Your task to perform on an android device: open app "Fetch Rewards" (install if not already installed) and enter user name: "Westwood@yahoo.com" and password: "qualifying" Image 0: 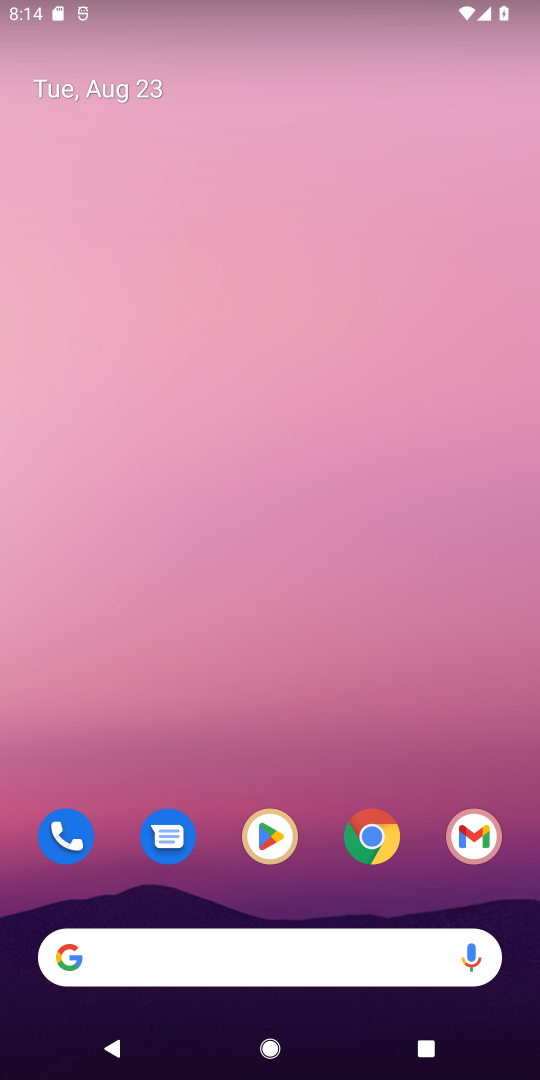
Step 0: click (270, 836)
Your task to perform on an android device: open app "Fetch Rewards" (install if not already installed) and enter user name: "Westwood@yahoo.com" and password: "qualifying" Image 1: 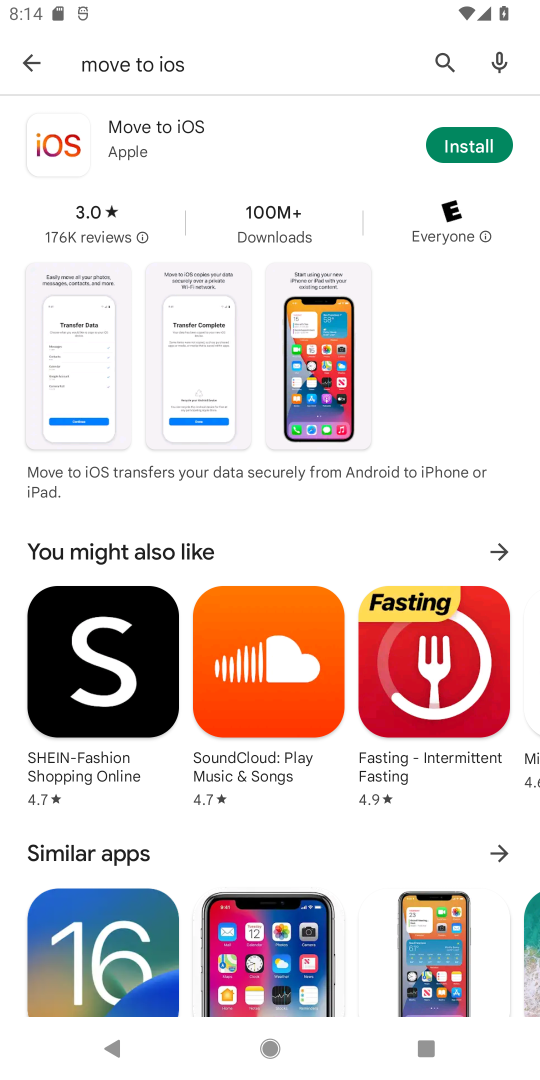
Step 1: click (450, 62)
Your task to perform on an android device: open app "Fetch Rewards" (install if not already installed) and enter user name: "Westwood@yahoo.com" and password: "qualifying" Image 2: 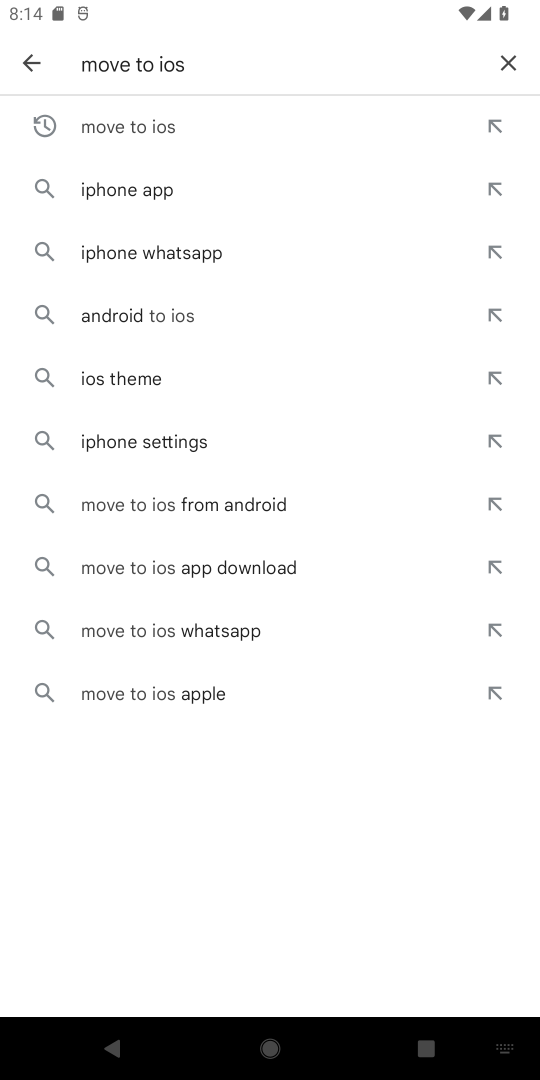
Step 2: click (502, 60)
Your task to perform on an android device: open app "Fetch Rewards" (install if not already installed) and enter user name: "Westwood@yahoo.com" and password: "qualifying" Image 3: 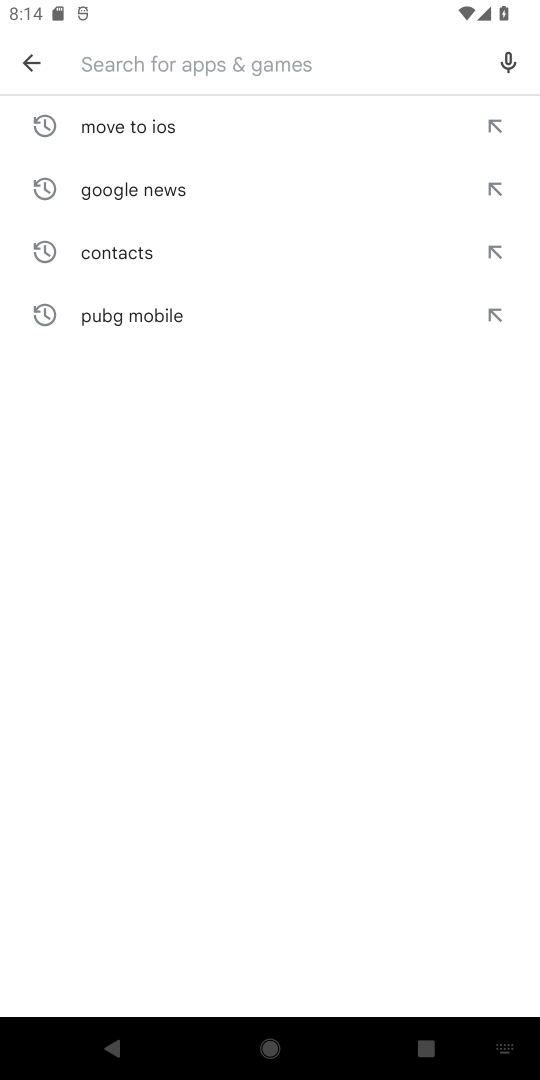
Step 3: type "Fetch Rewards"
Your task to perform on an android device: open app "Fetch Rewards" (install if not already installed) and enter user name: "Westwood@yahoo.com" and password: "qualifying" Image 4: 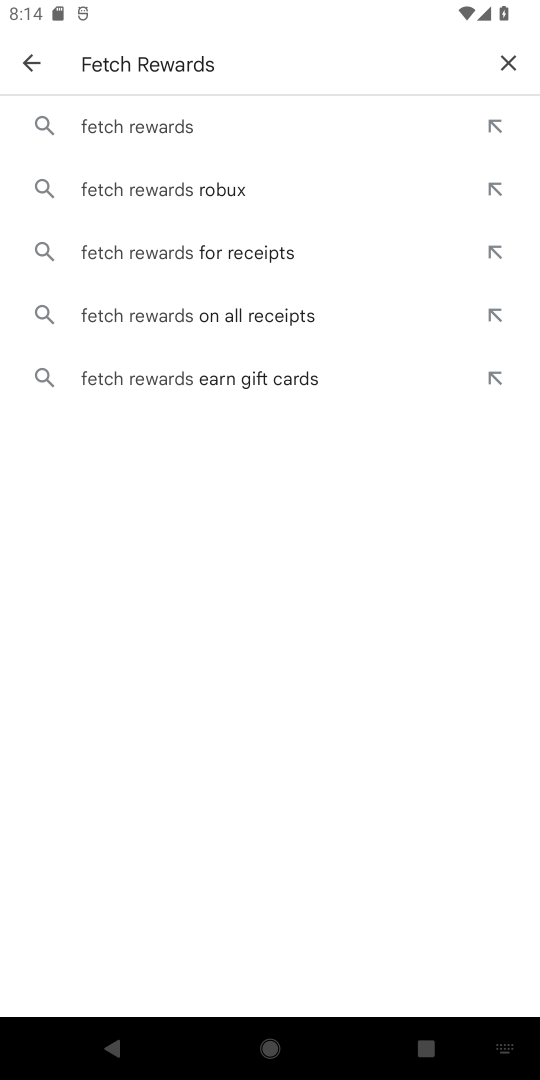
Step 4: click (133, 135)
Your task to perform on an android device: open app "Fetch Rewards" (install if not already installed) and enter user name: "Westwood@yahoo.com" and password: "qualifying" Image 5: 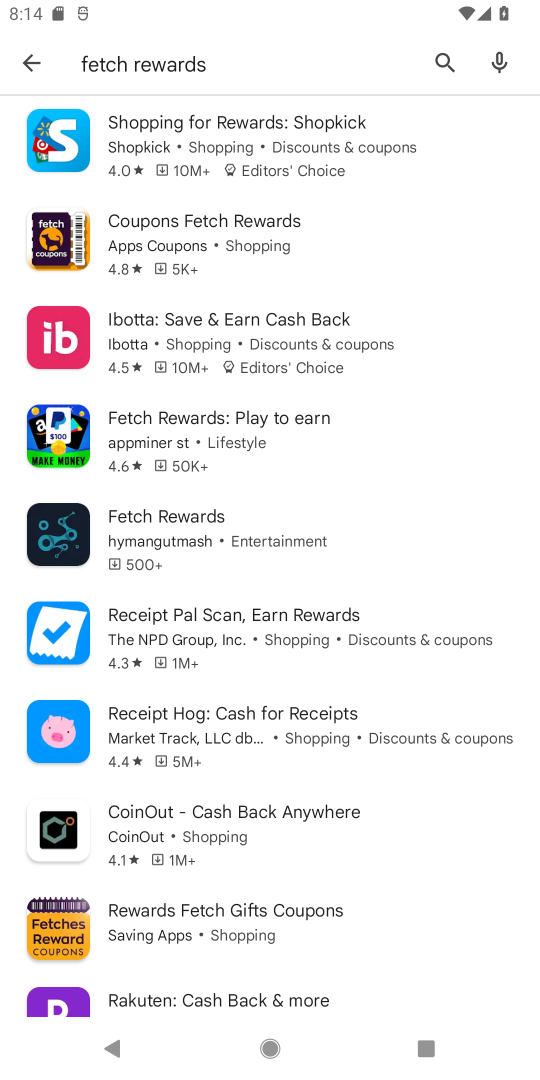
Step 5: click (175, 539)
Your task to perform on an android device: open app "Fetch Rewards" (install if not already installed) and enter user name: "Westwood@yahoo.com" and password: "qualifying" Image 6: 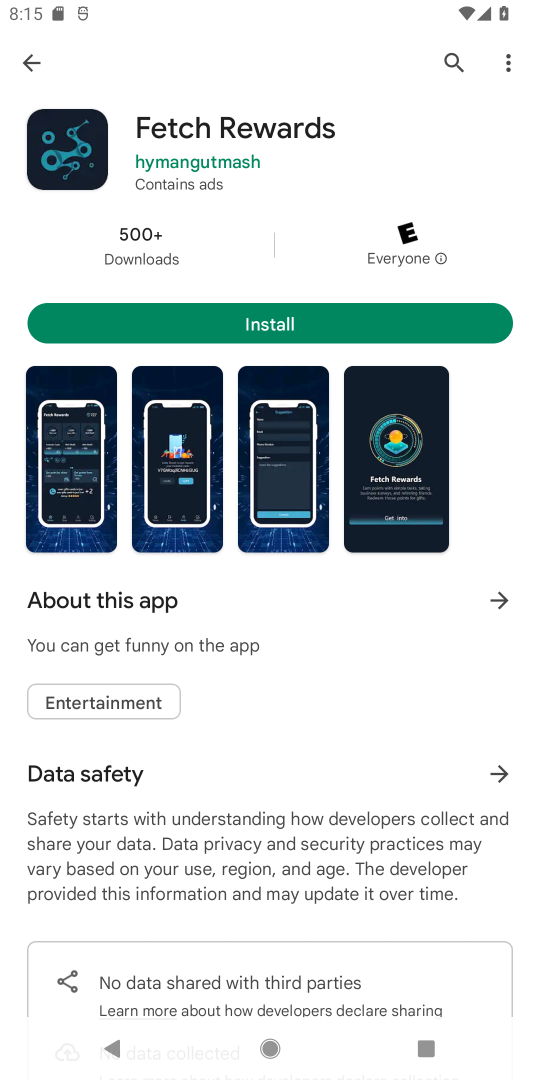
Step 6: click (323, 319)
Your task to perform on an android device: open app "Fetch Rewards" (install if not already installed) and enter user name: "Westwood@yahoo.com" and password: "qualifying" Image 7: 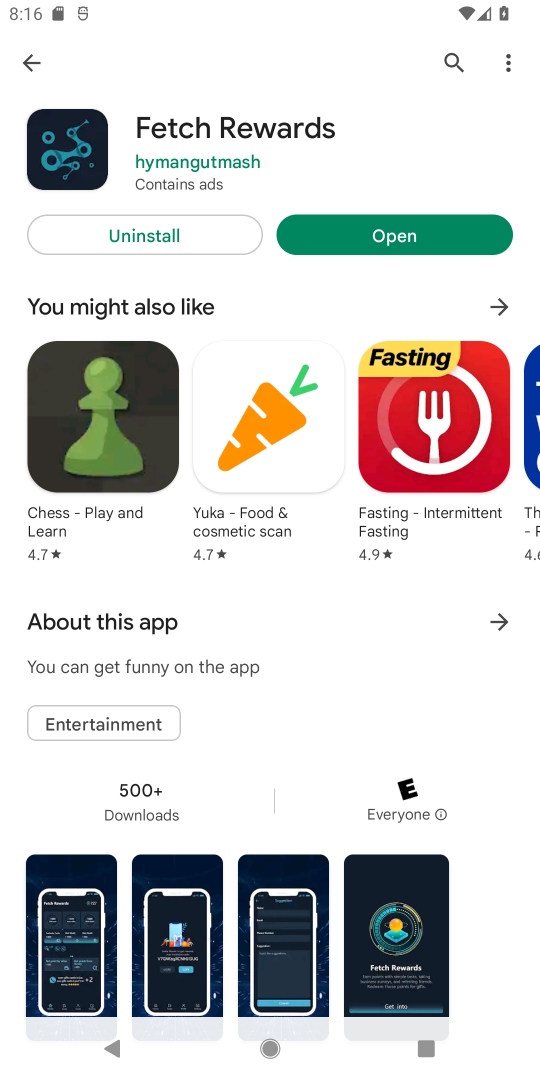
Step 7: click (460, 244)
Your task to perform on an android device: open app "Fetch Rewards" (install if not already installed) and enter user name: "Westwood@yahoo.com" and password: "qualifying" Image 8: 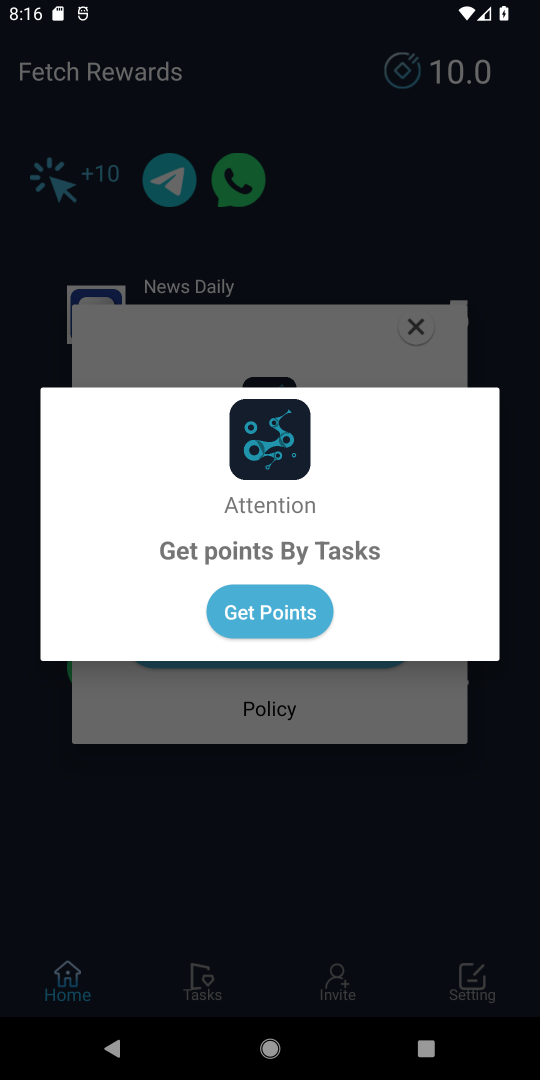
Step 8: task complete